Your task to perform on an android device: turn off airplane mode Image 0: 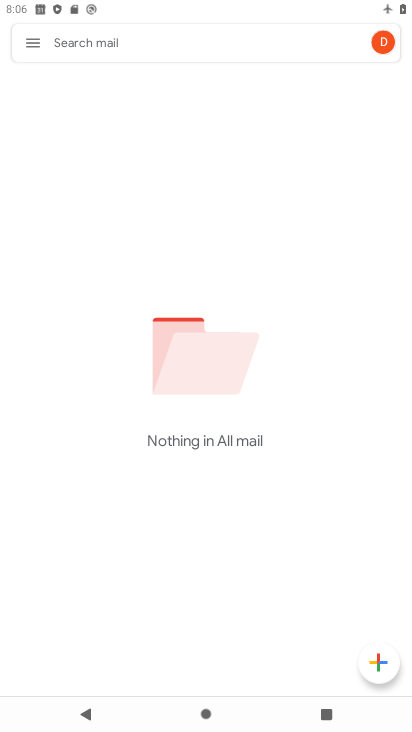
Step 0: press home button
Your task to perform on an android device: turn off airplane mode Image 1: 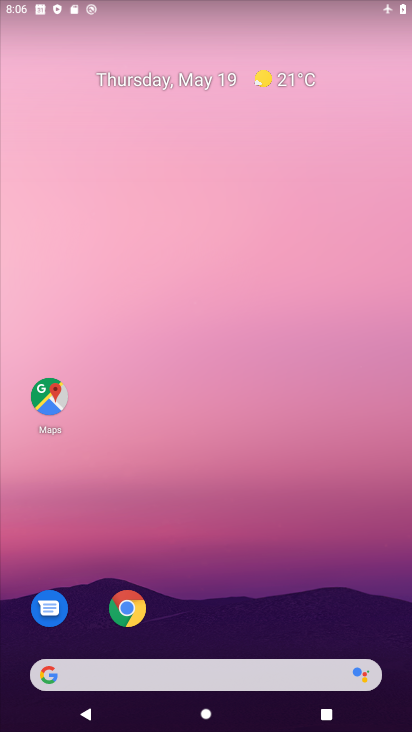
Step 1: drag from (223, 562) to (162, 92)
Your task to perform on an android device: turn off airplane mode Image 2: 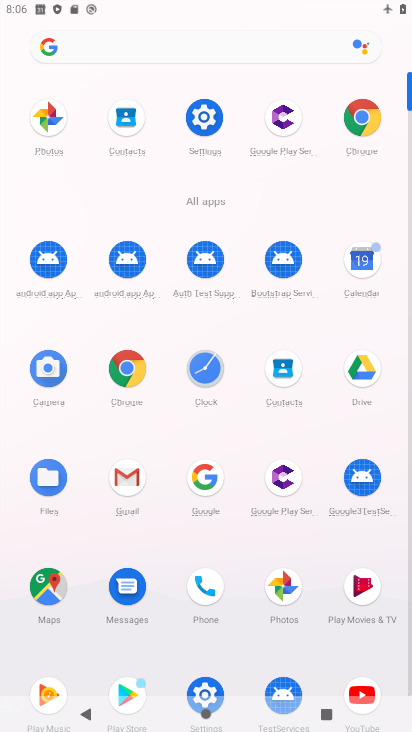
Step 2: click (199, 116)
Your task to perform on an android device: turn off airplane mode Image 3: 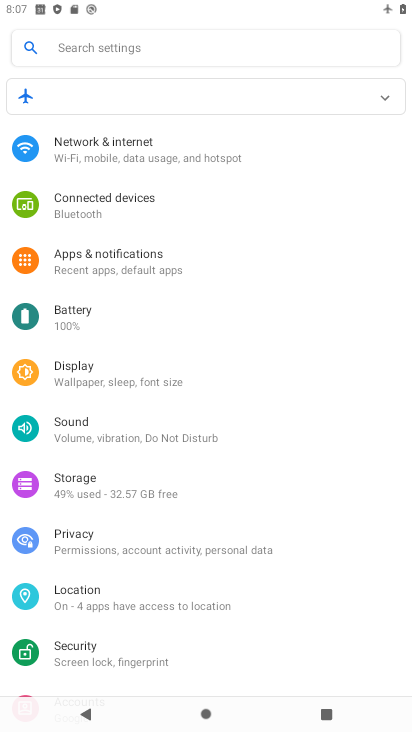
Step 3: click (117, 139)
Your task to perform on an android device: turn off airplane mode Image 4: 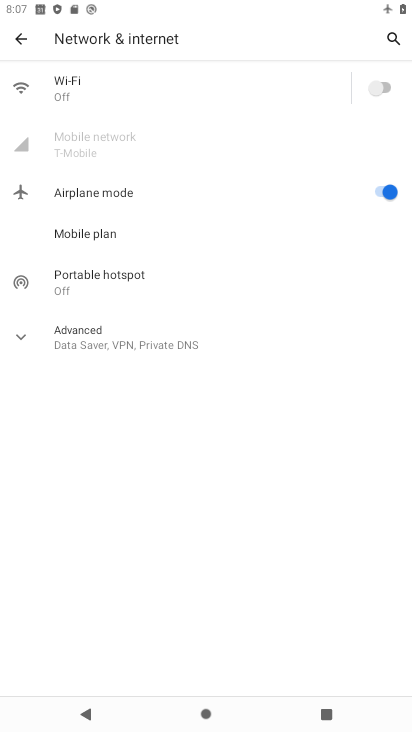
Step 4: click (381, 185)
Your task to perform on an android device: turn off airplane mode Image 5: 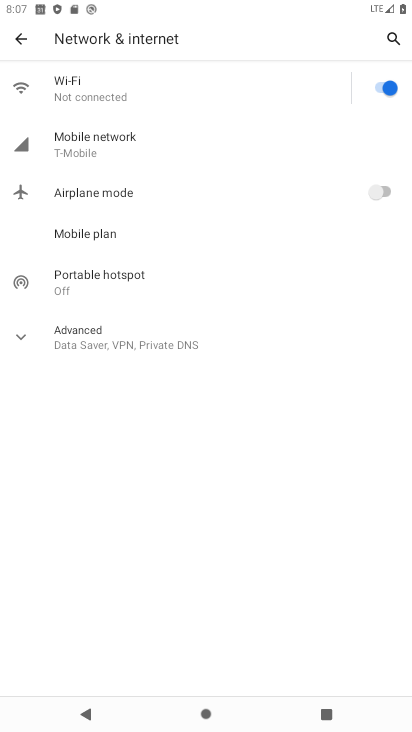
Step 5: task complete